Your task to perform on an android device: Open Chrome and go to settings Image 0: 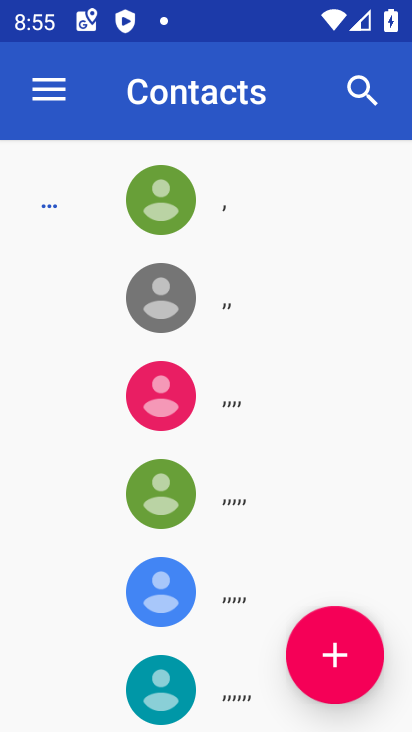
Step 0: press home button
Your task to perform on an android device: Open Chrome and go to settings Image 1: 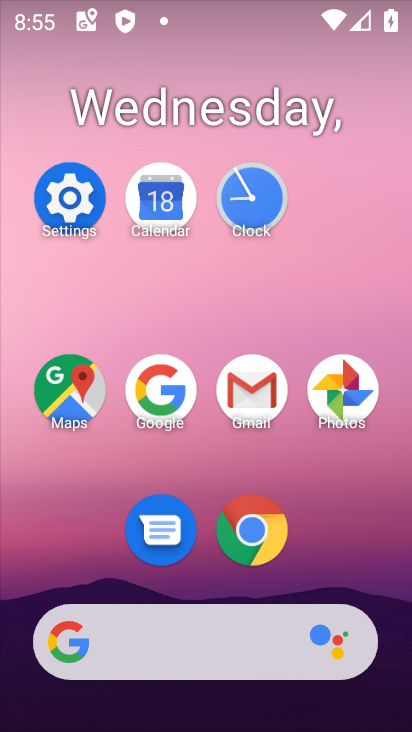
Step 1: click (276, 530)
Your task to perform on an android device: Open Chrome and go to settings Image 2: 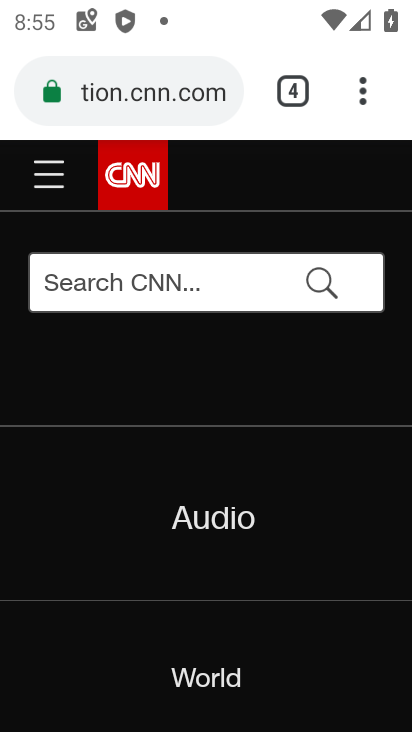
Step 2: click (359, 96)
Your task to perform on an android device: Open Chrome and go to settings Image 3: 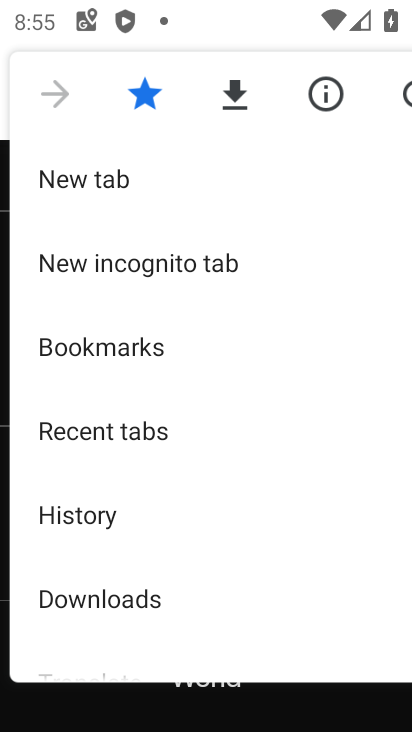
Step 3: drag from (284, 512) to (296, 183)
Your task to perform on an android device: Open Chrome and go to settings Image 4: 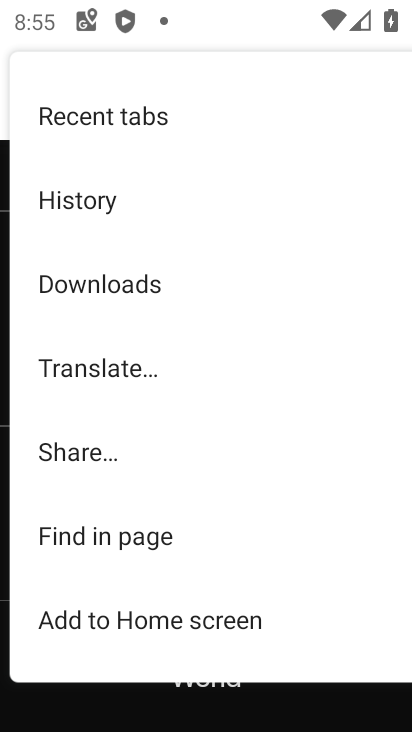
Step 4: drag from (255, 539) to (295, 195)
Your task to perform on an android device: Open Chrome and go to settings Image 5: 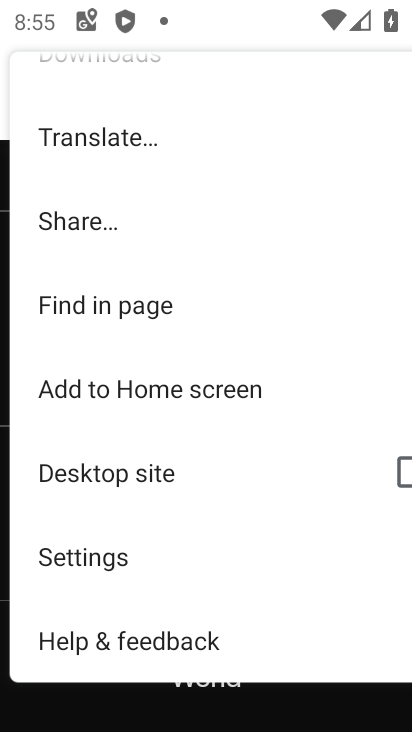
Step 5: click (180, 539)
Your task to perform on an android device: Open Chrome and go to settings Image 6: 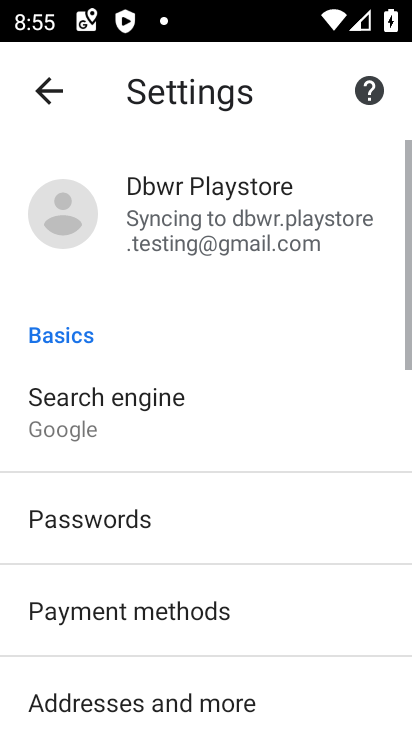
Step 6: task complete